Your task to perform on an android device: Open Android settings Image 0: 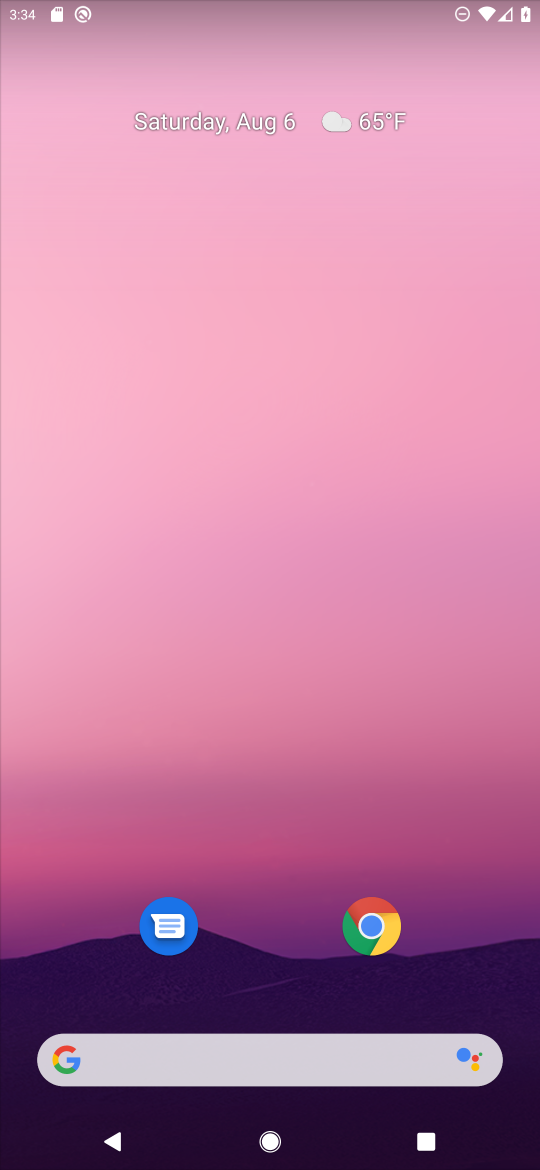
Step 0: drag from (282, 835) to (299, 320)
Your task to perform on an android device: Open Android settings Image 1: 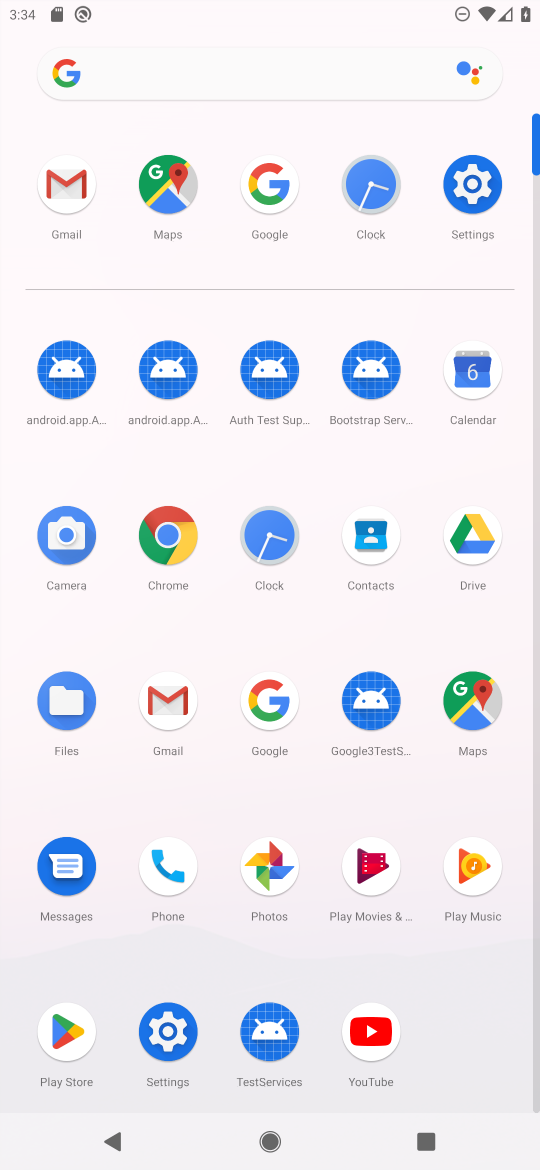
Step 1: click (465, 213)
Your task to perform on an android device: Open Android settings Image 2: 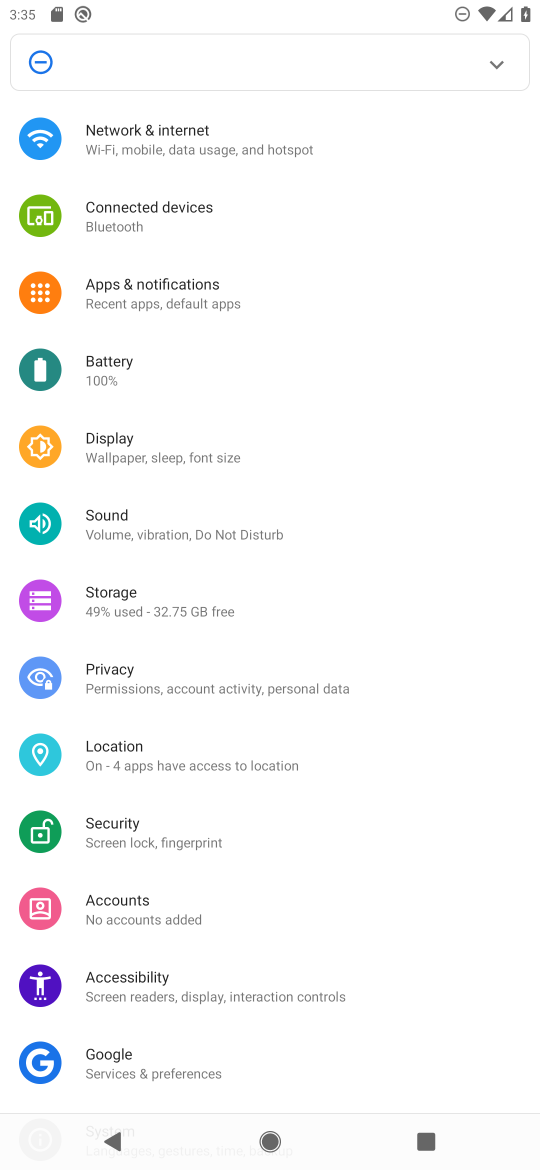
Step 2: task complete